Your task to perform on an android device: When is my next meeting? Image 0: 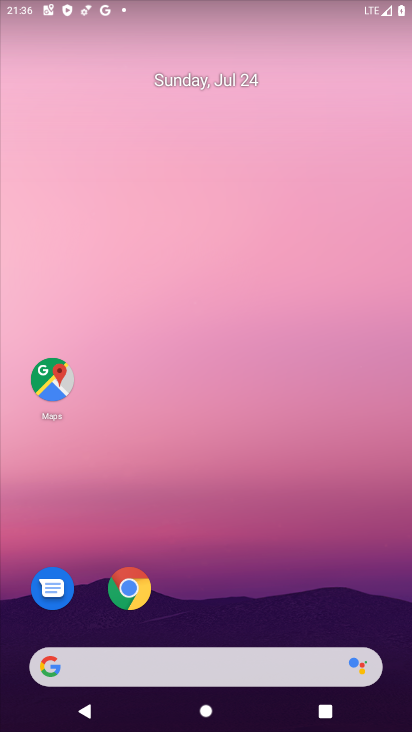
Step 0: drag from (226, 651) to (406, 286)
Your task to perform on an android device: When is my next meeting? Image 1: 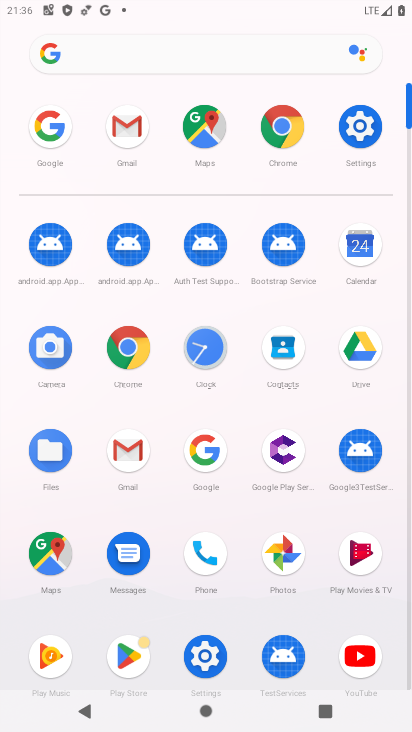
Step 1: click (359, 251)
Your task to perform on an android device: When is my next meeting? Image 2: 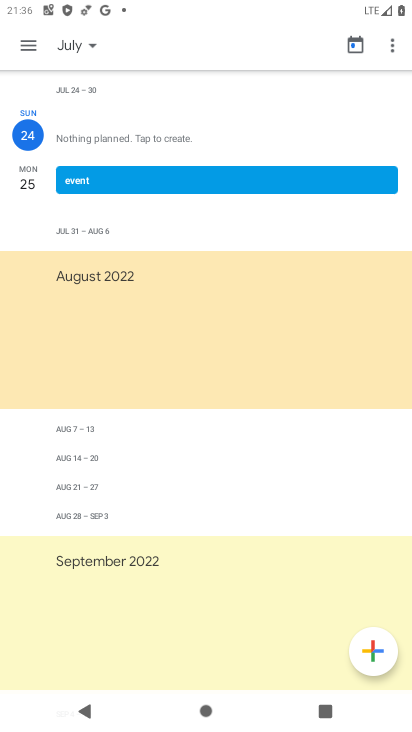
Step 2: task complete